Your task to perform on an android device: What's the weather going to be this weekend? Image 0: 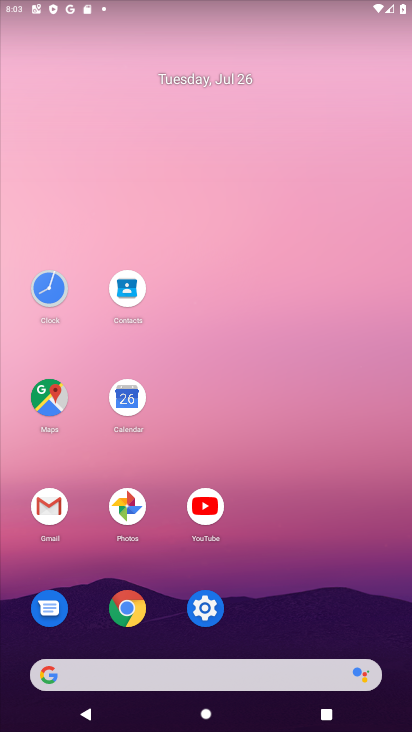
Step 0: click (148, 675)
Your task to perform on an android device: What's the weather going to be this weekend? Image 1: 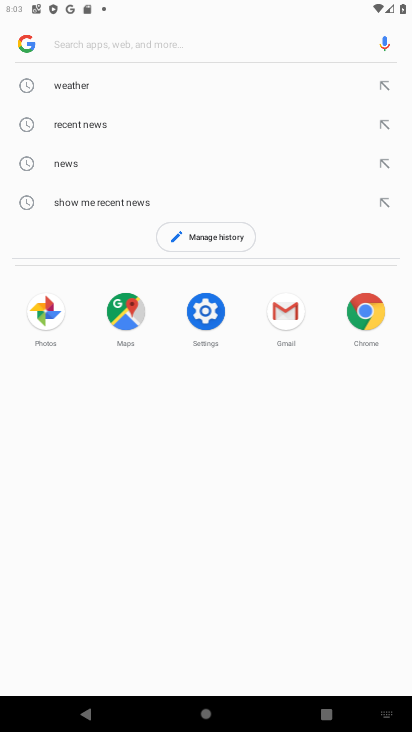
Step 1: click (63, 83)
Your task to perform on an android device: What's the weather going to be this weekend? Image 2: 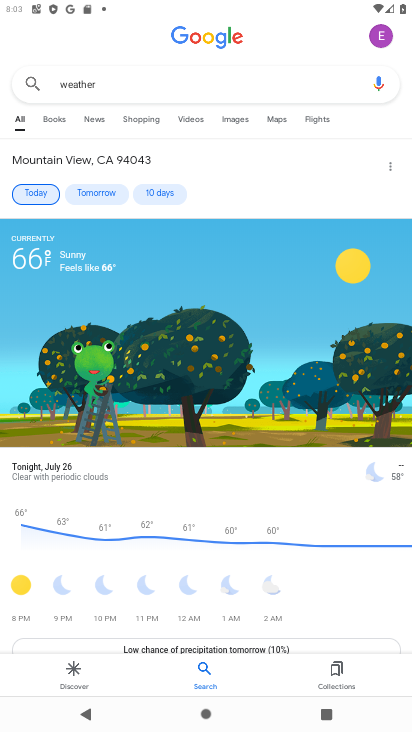
Step 2: click (160, 192)
Your task to perform on an android device: What's the weather going to be this weekend? Image 3: 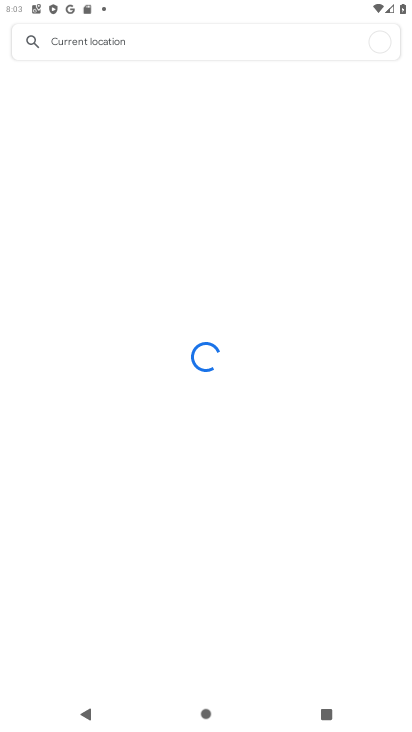
Step 3: click (160, 192)
Your task to perform on an android device: What's the weather going to be this weekend? Image 4: 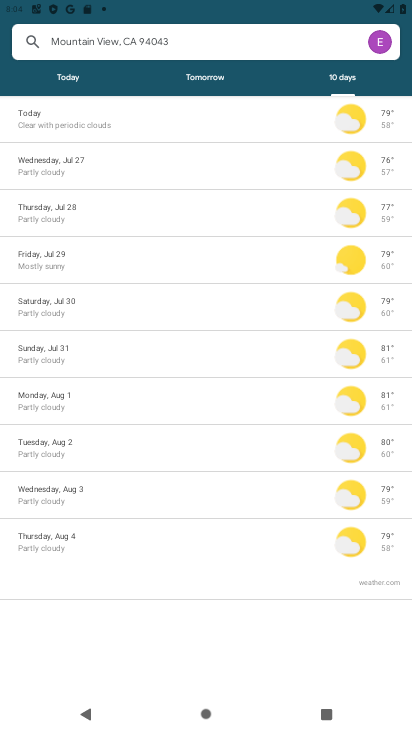
Step 4: task complete